Your task to perform on an android device: turn on notifications settings in the gmail app Image 0: 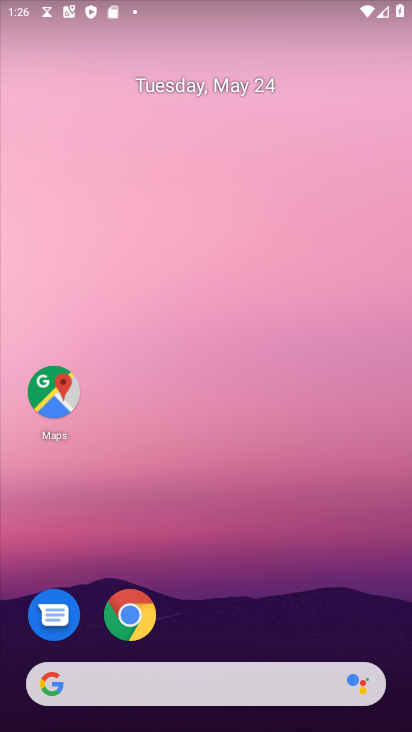
Step 0: press home button
Your task to perform on an android device: turn on notifications settings in the gmail app Image 1: 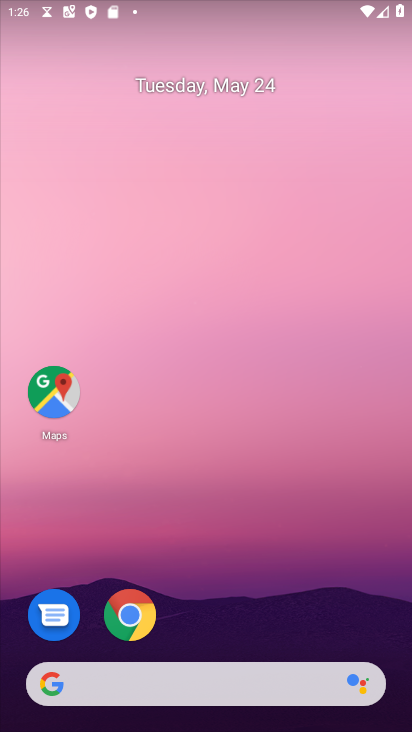
Step 1: drag from (216, 640) to (234, 41)
Your task to perform on an android device: turn on notifications settings in the gmail app Image 2: 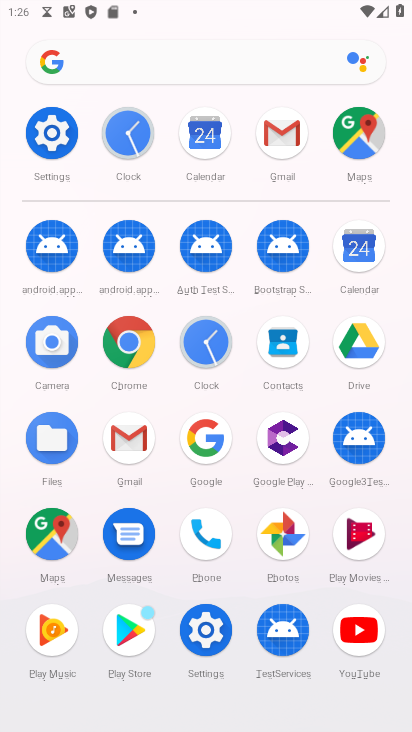
Step 2: click (126, 429)
Your task to perform on an android device: turn on notifications settings in the gmail app Image 3: 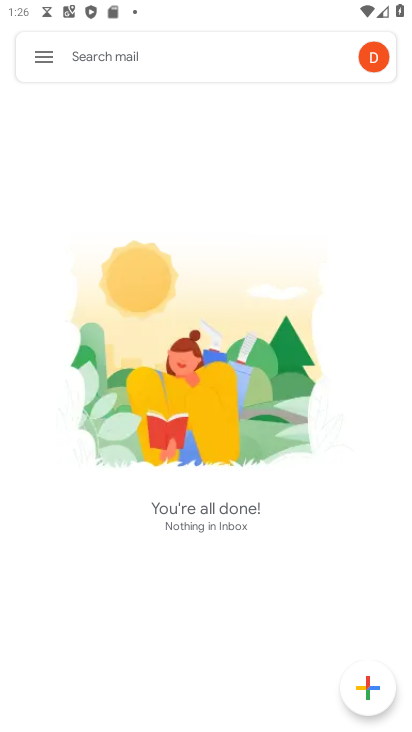
Step 3: click (44, 57)
Your task to perform on an android device: turn on notifications settings in the gmail app Image 4: 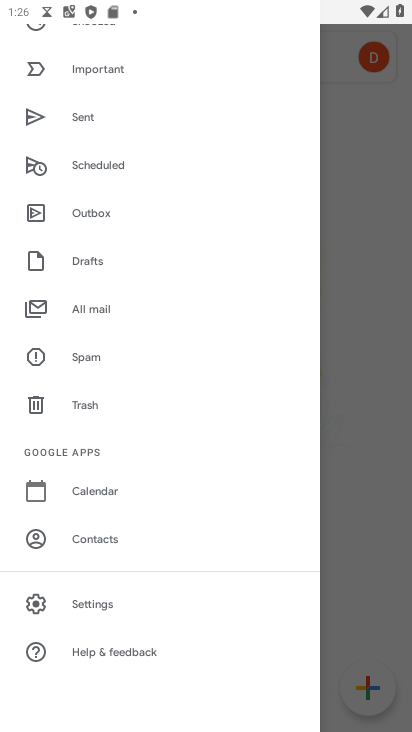
Step 4: click (124, 601)
Your task to perform on an android device: turn on notifications settings in the gmail app Image 5: 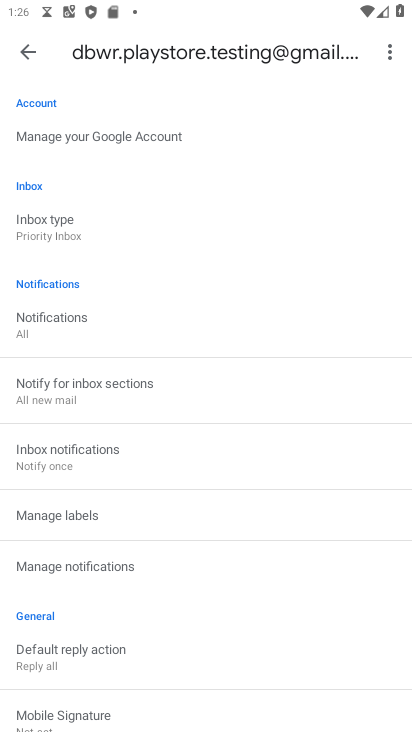
Step 5: click (30, 47)
Your task to perform on an android device: turn on notifications settings in the gmail app Image 6: 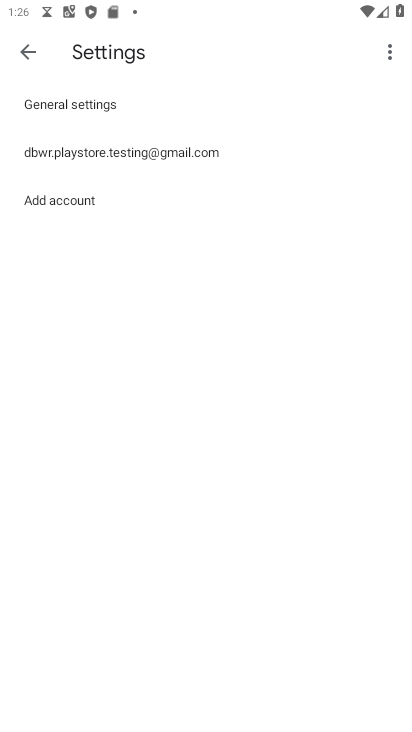
Step 6: click (116, 98)
Your task to perform on an android device: turn on notifications settings in the gmail app Image 7: 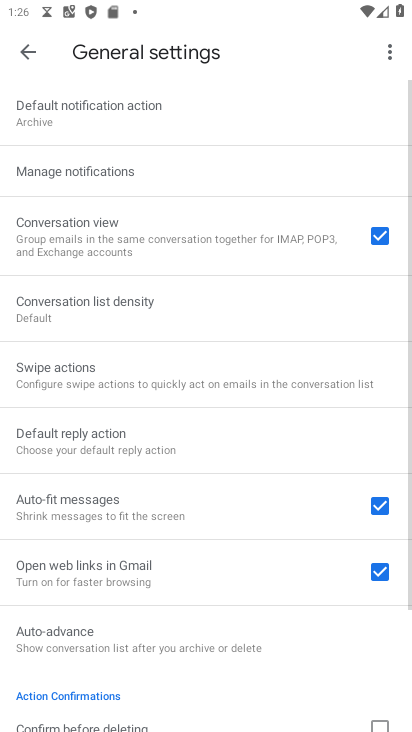
Step 7: click (125, 163)
Your task to perform on an android device: turn on notifications settings in the gmail app Image 8: 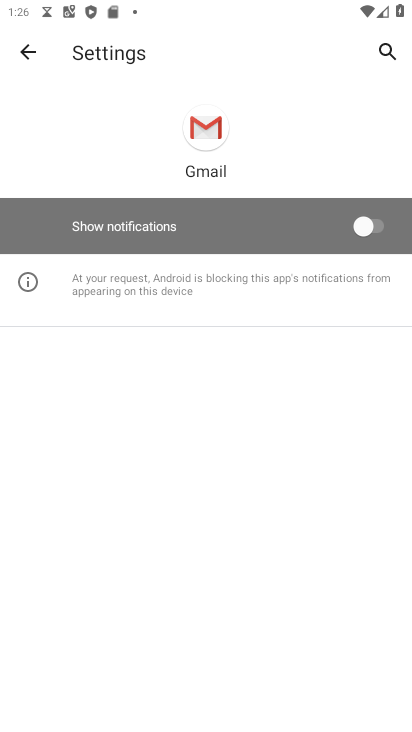
Step 8: click (373, 229)
Your task to perform on an android device: turn on notifications settings in the gmail app Image 9: 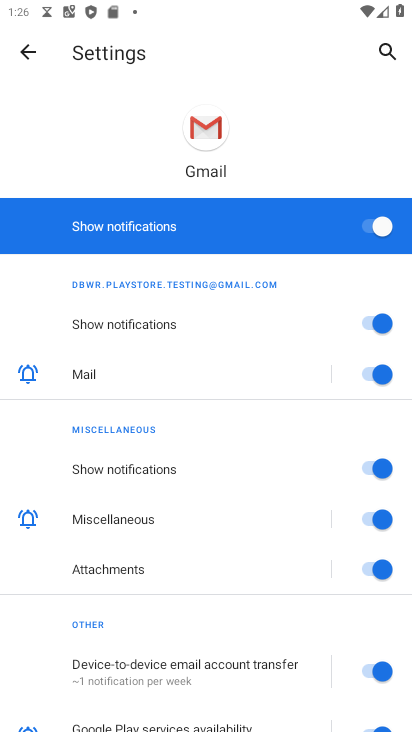
Step 9: task complete